Your task to perform on an android device: What's the weather going to be tomorrow? Image 0: 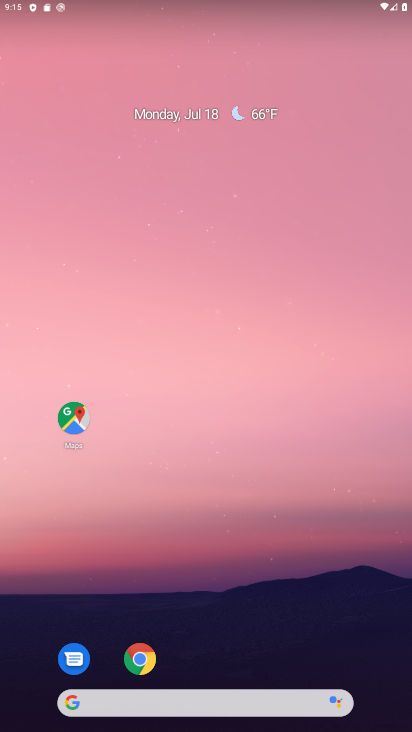
Step 0: click (141, 692)
Your task to perform on an android device: What's the weather going to be tomorrow? Image 1: 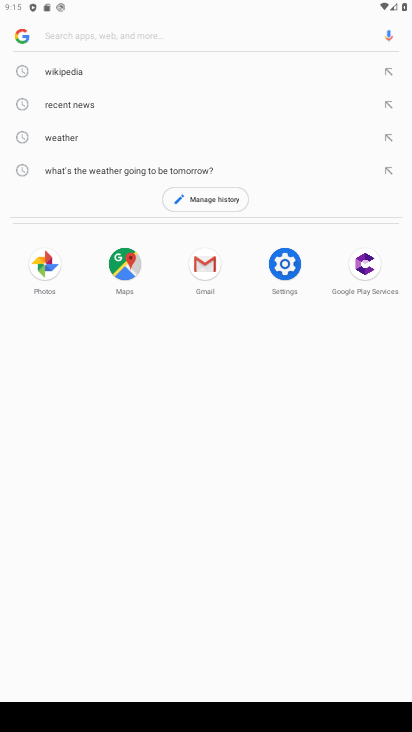
Step 1: type "What's the weather going to be tomorrow?"
Your task to perform on an android device: What's the weather going to be tomorrow? Image 2: 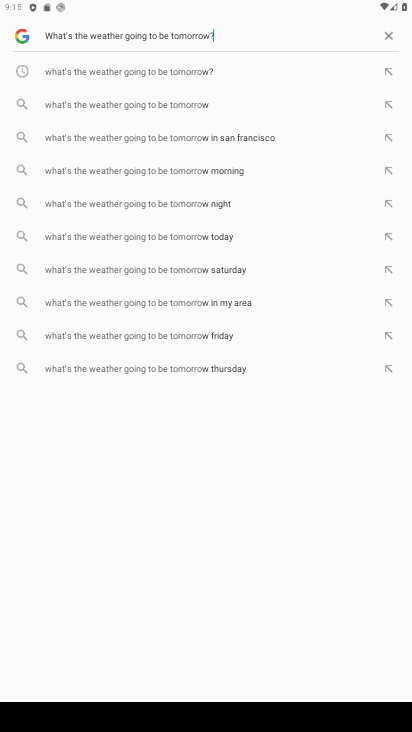
Step 2: press enter
Your task to perform on an android device: What's the weather going to be tomorrow? Image 3: 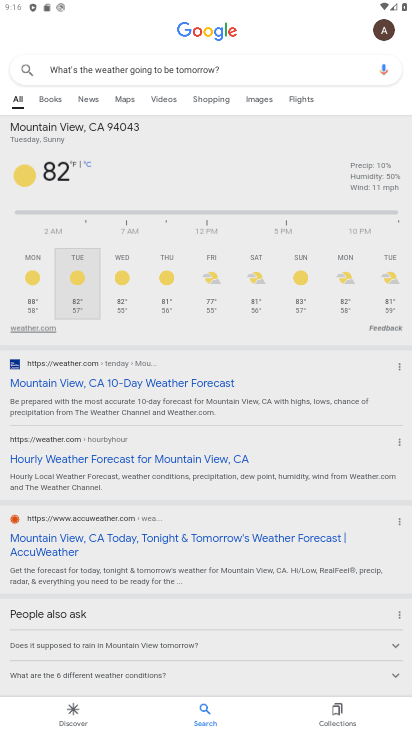
Step 3: task complete